Your task to perform on an android device: toggle airplane mode Image 0: 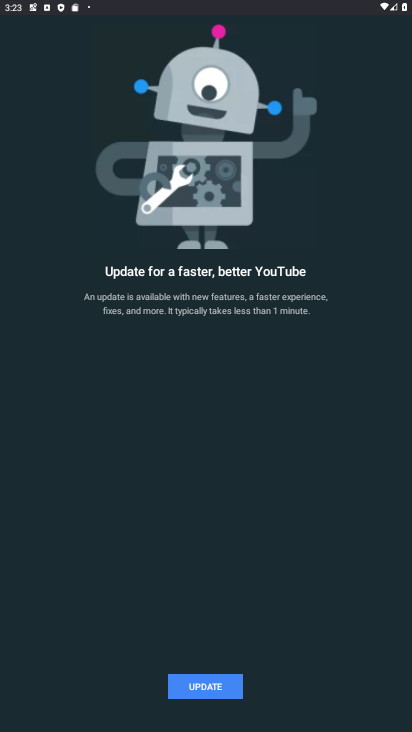
Step 0: press home button
Your task to perform on an android device: toggle airplane mode Image 1: 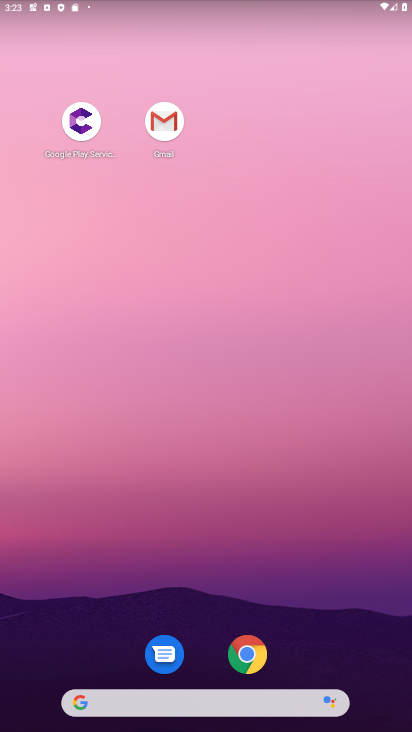
Step 1: click (297, 175)
Your task to perform on an android device: toggle airplane mode Image 2: 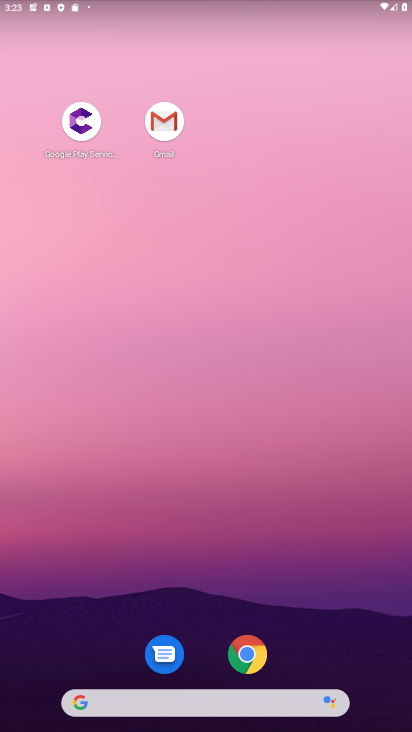
Step 2: drag from (323, 634) to (311, 190)
Your task to perform on an android device: toggle airplane mode Image 3: 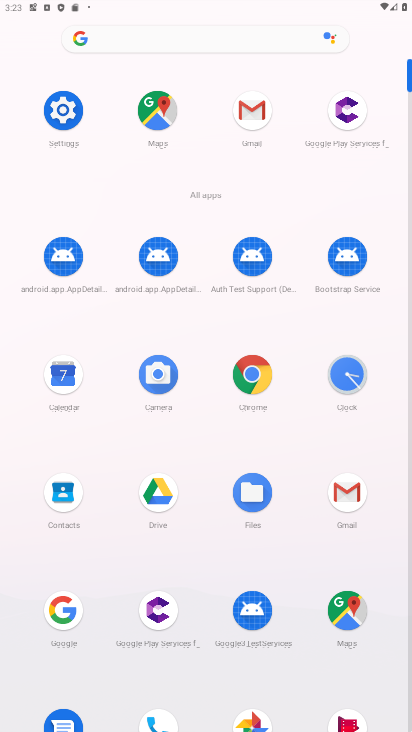
Step 3: click (69, 118)
Your task to perform on an android device: toggle airplane mode Image 4: 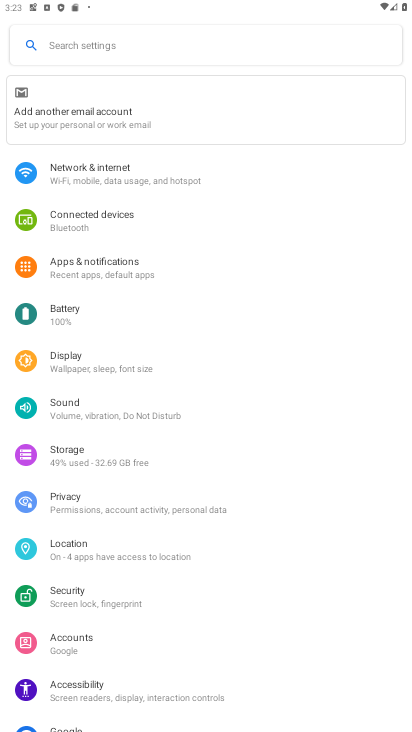
Step 4: click (242, 181)
Your task to perform on an android device: toggle airplane mode Image 5: 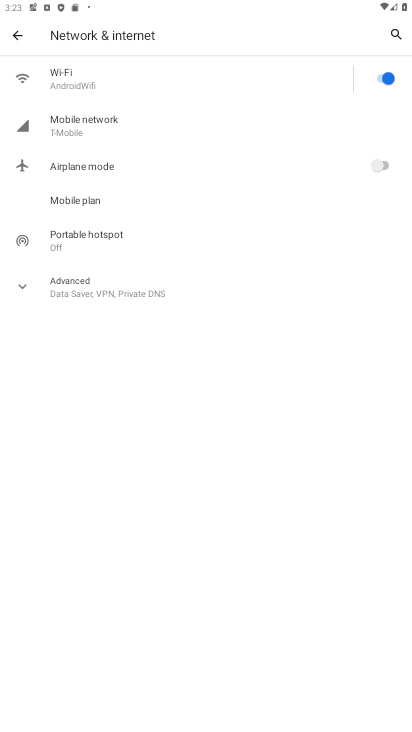
Step 5: click (384, 160)
Your task to perform on an android device: toggle airplane mode Image 6: 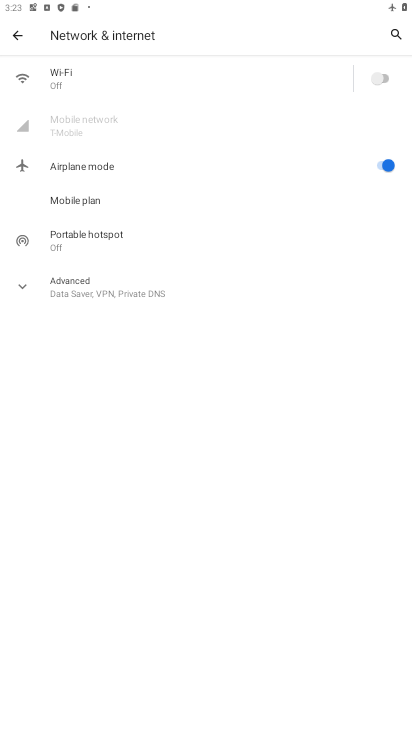
Step 6: task complete